Your task to perform on an android device: Go to notification settings Image 0: 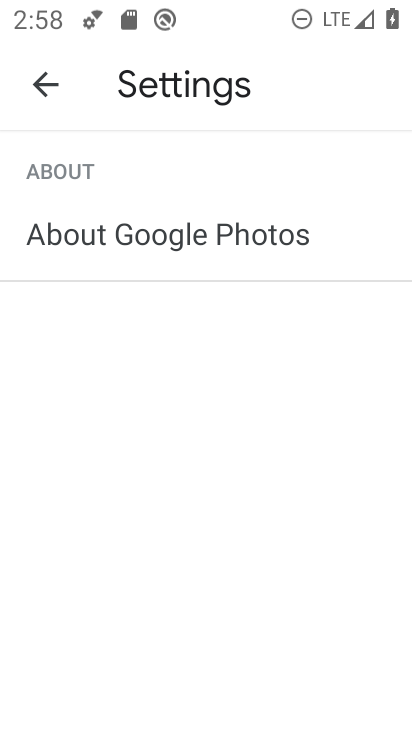
Step 0: press home button
Your task to perform on an android device: Go to notification settings Image 1: 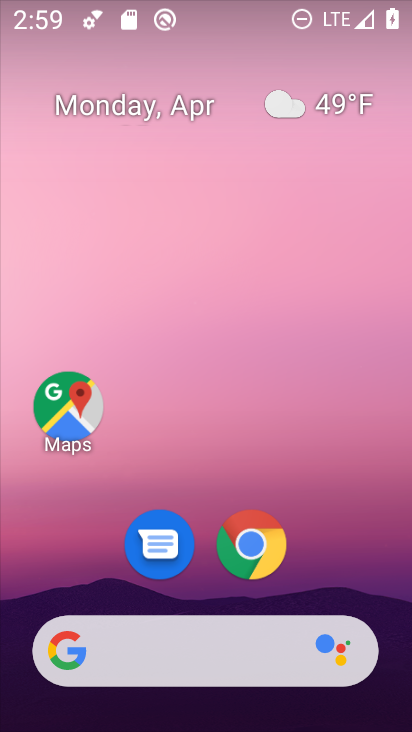
Step 1: drag from (324, 560) to (251, 70)
Your task to perform on an android device: Go to notification settings Image 2: 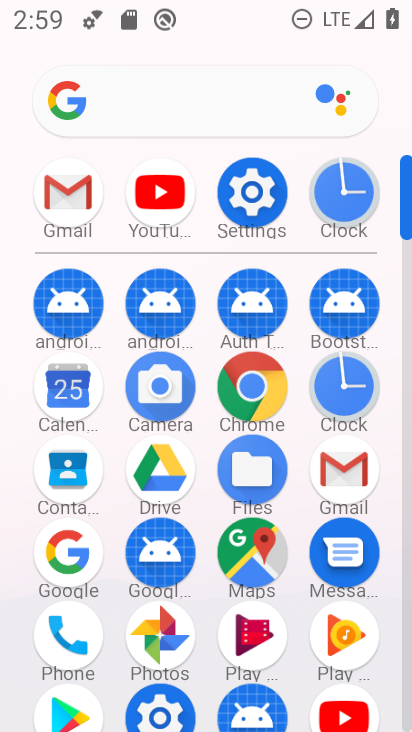
Step 2: click (267, 198)
Your task to perform on an android device: Go to notification settings Image 3: 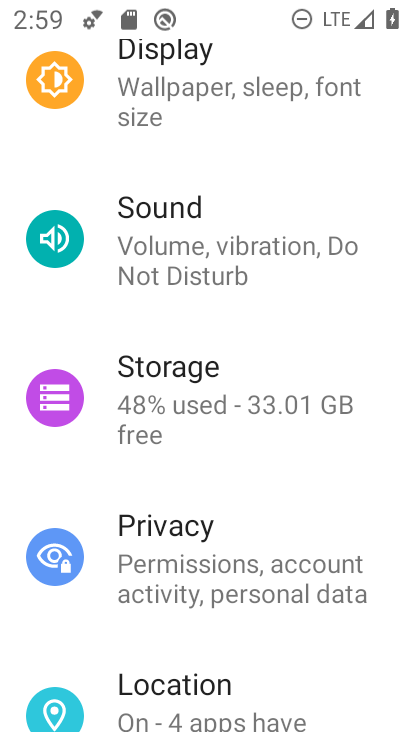
Step 3: drag from (246, 172) to (254, 637)
Your task to perform on an android device: Go to notification settings Image 4: 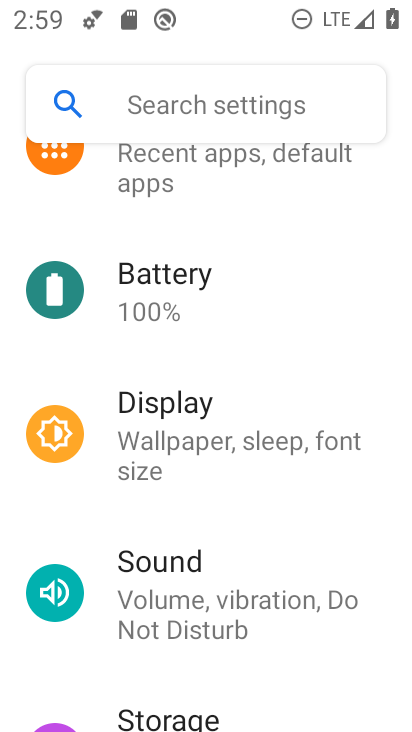
Step 4: drag from (288, 251) to (254, 565)
Your task to perform on an android device: Go to notification settings Image 5: 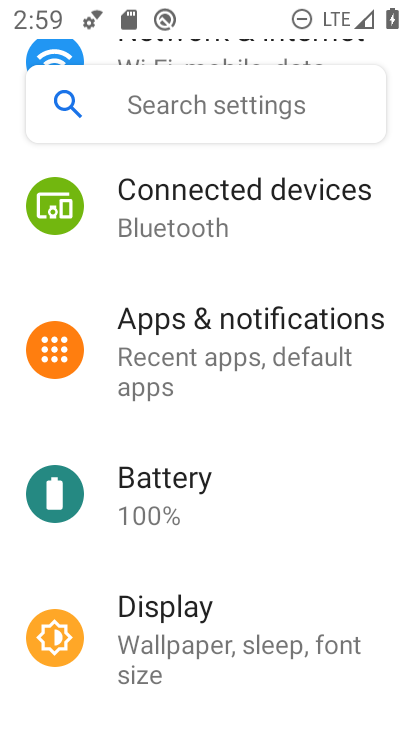
Step 5: click (268, 340)
Your task to perform on an android device: Go to notification settings Image 6: 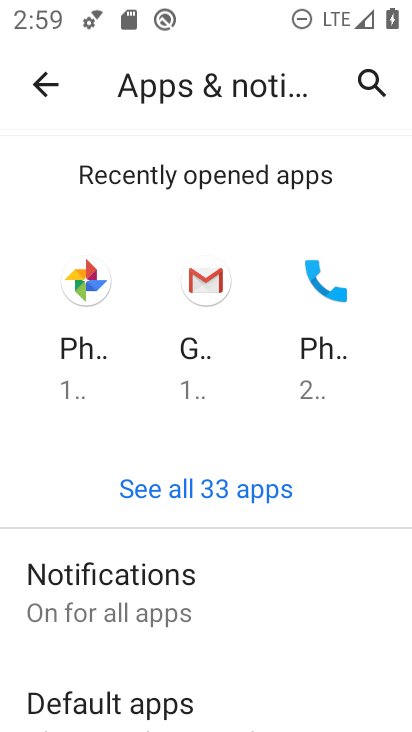
Step 6: task complete